Your task to perform on an android device: allow notifications from all sites in the chrome app Image 0: 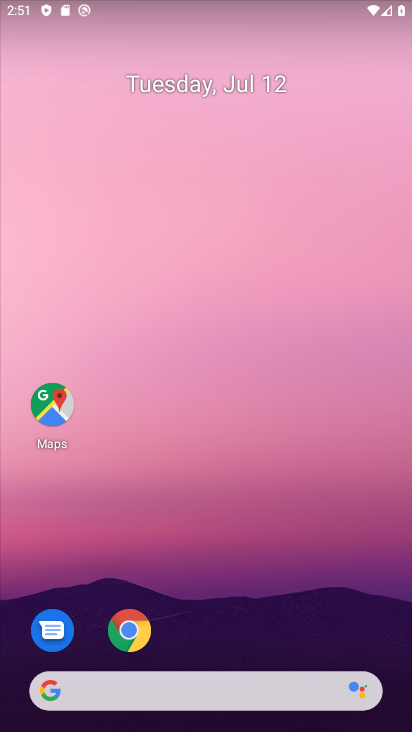
Step 0: drag from (338, 690) to (375, 0)
Your task to perform on an android device: allow notifications from all sites in the chrome app Image 1: 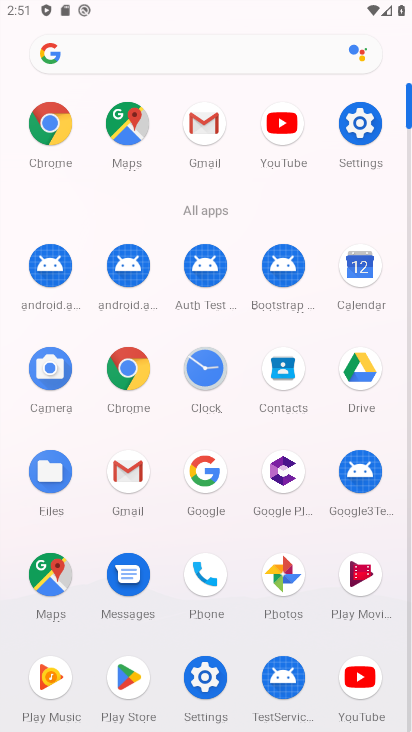
Step 1: click (138, 371)
Your task to perform on an android device: allow notifications from all sites in the chrome app Image 2: 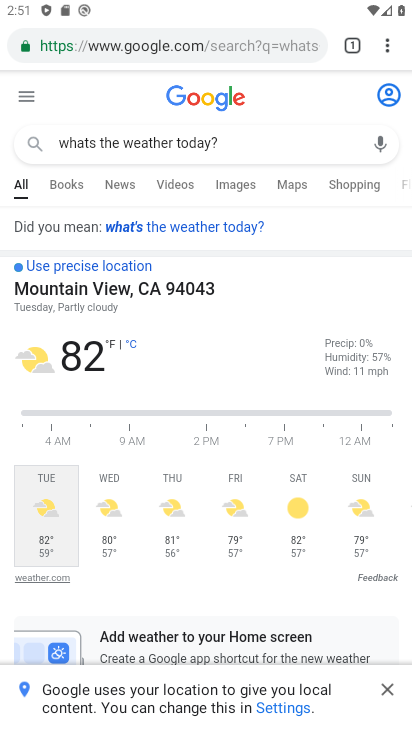
Step 2: drag from (390, 44) to (208, 515)
Your task to perform on an android device: allow notifications from all sites in the chrome app Image 3: 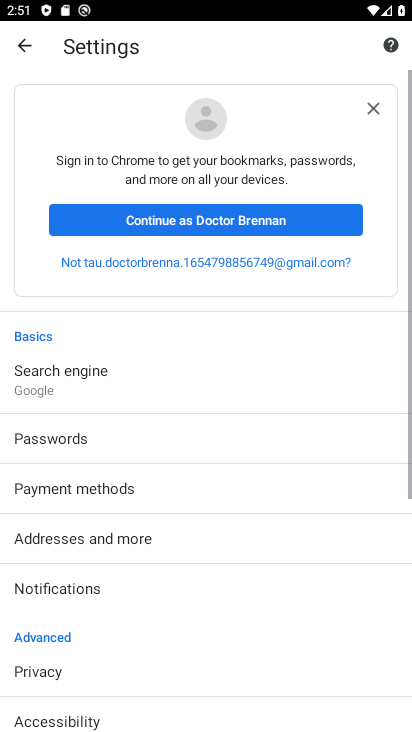
Step 3: drag from (139, 591) to (153, 74)
Your task to perform on an android device: allow notifications from all sites in the chrome app Image 4: 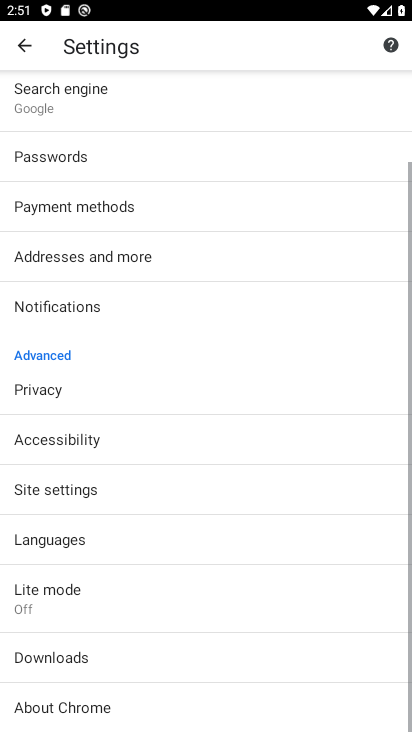
Step 4: click (110, 496)
Your task to perform on an android device: allow notifications from all sites in the chrome app Image 5: 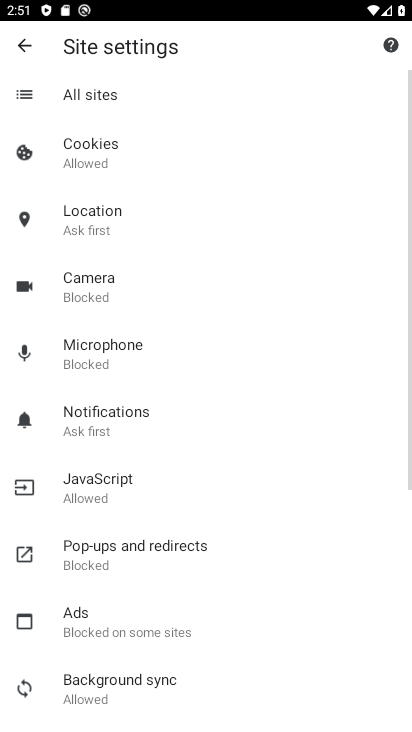
Step 5: drag from (199, 613) to (241, 127)
Your task to perform on an android device: allow notifications from all sites in the chrome app Image 6: 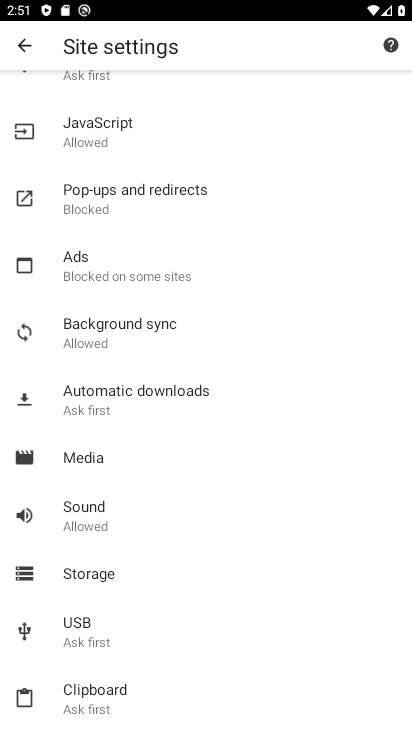
Step 6: drag from (101, 689) to (159, 246)
Your task to perform on an android device: allow notifications from all sites in the chrome app Image 7: 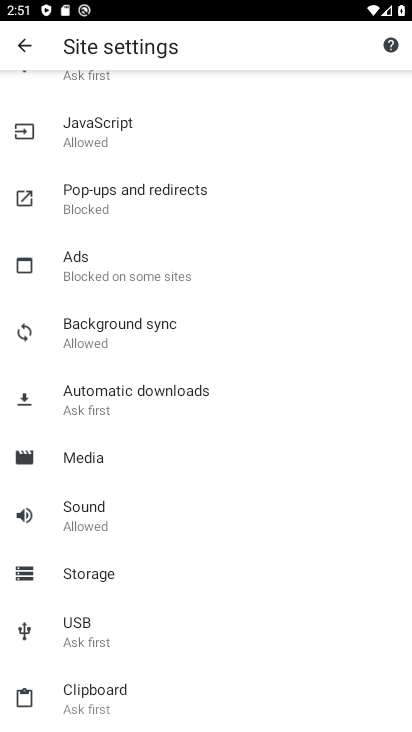
Step 7: drag from (185, 253) to (184, 673)
Your task to perform on an android device: allow notifications from all sites in the chrome app Image 8: 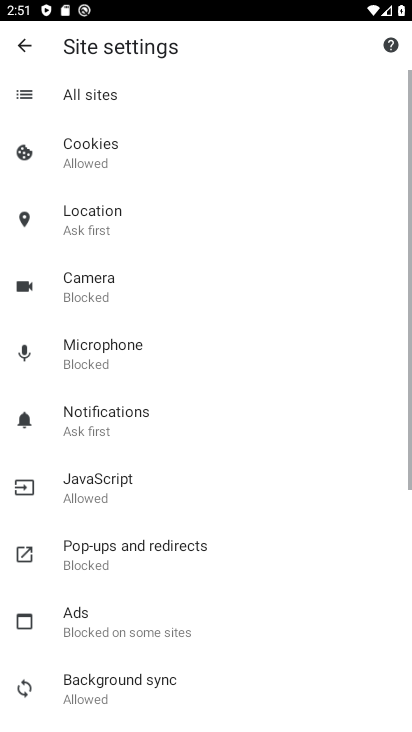
Step 8: click (124, 428)
Your task to perform on an android device: allow notifications from all sites in the chrome app Image 9: 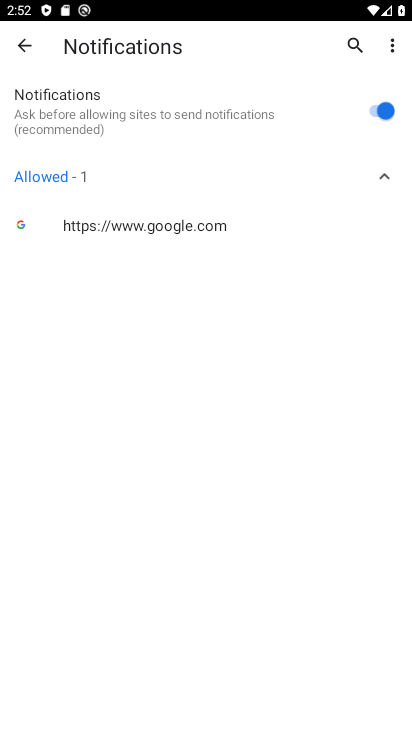
Step 9: task complete